Your task to perform on an android device: delete location history Image 0: 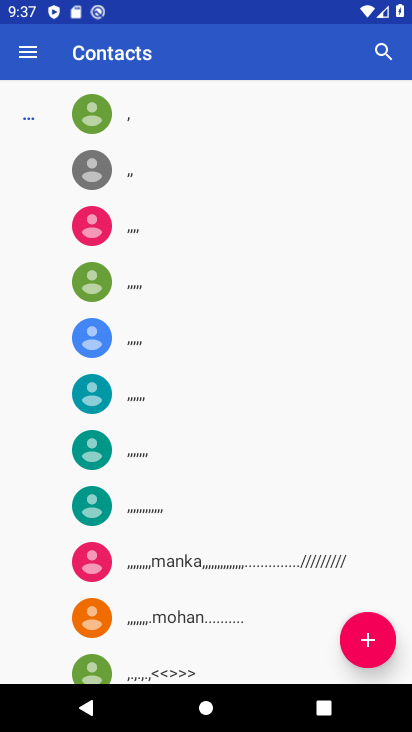
Step 0: press home button
Your task to perform on an android device: delete location history Image 1: 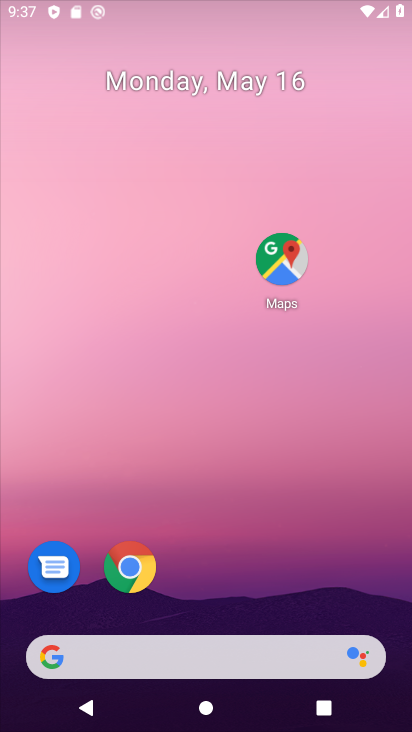
Step 1: drag from (214, 581) to (202, 141)
Your task to perform on an android device: delete location history Image 2: 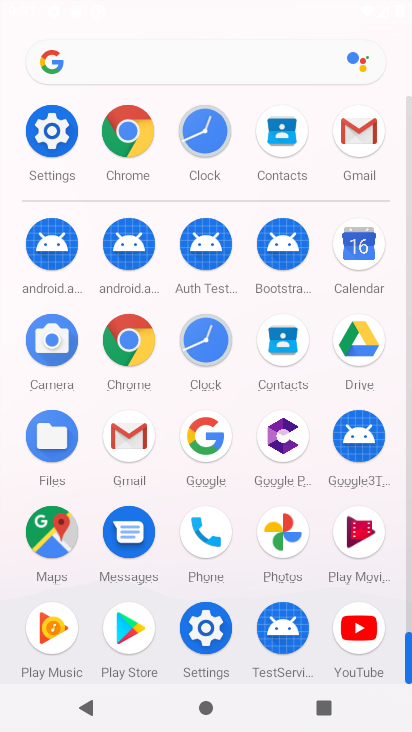
Step 2: click (206, 635)
Your task to perform on an android device: delete location history Image 3: 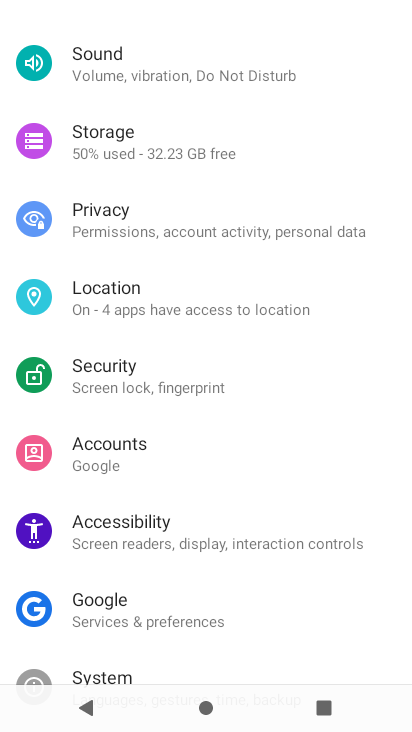
Step 3: click (190, 299)
Your task to perform on an android device: delete location history Image 4: 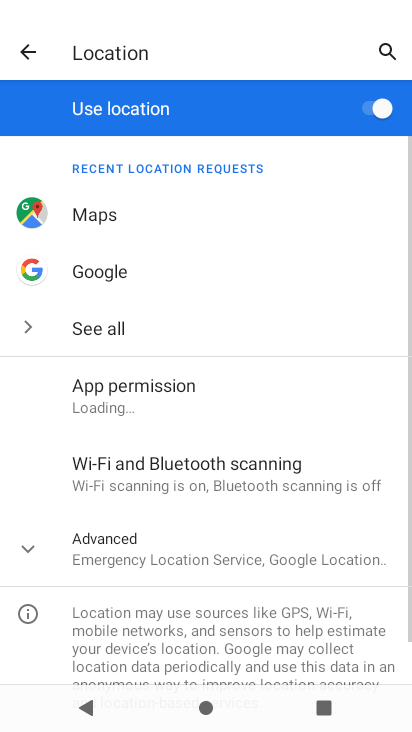
Step 4: click (129, 543)
Your task to perform on an android device: delete location history Image 5: 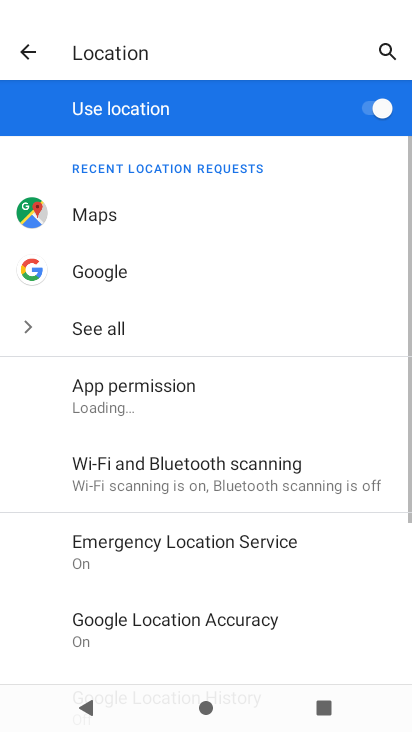
Step 5: drag from (281, 501) to (277, 258)
Your task to perform on an android device: delete location history Image 6: 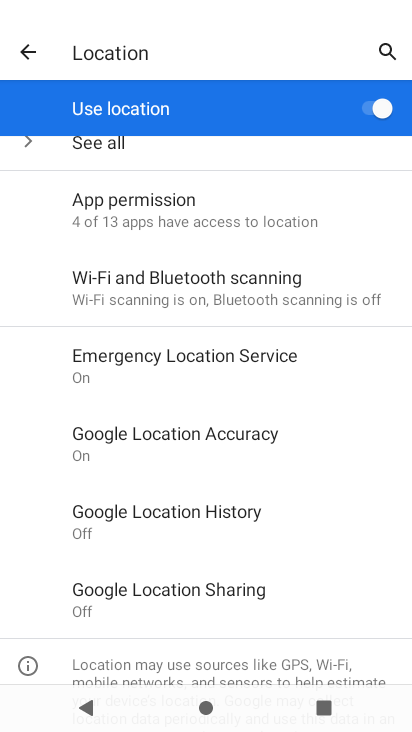
Step 6: click (169, 510)
Your task to perform on an android device: delete location history Image 7: 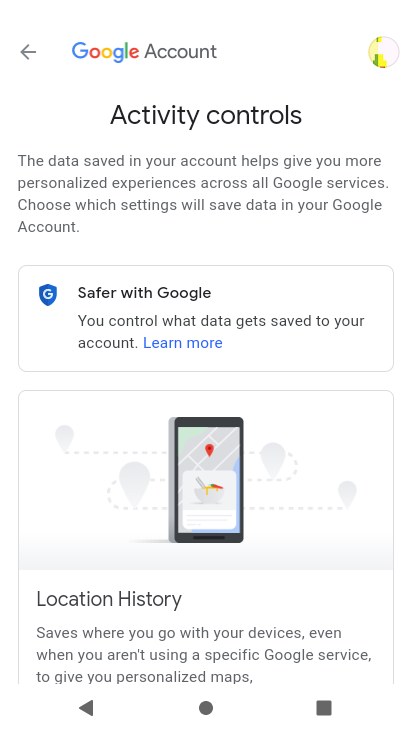
Step 7: drag from (331, 483) to (293, 81)
Your task to perform on an android device: delete location history Image 8: 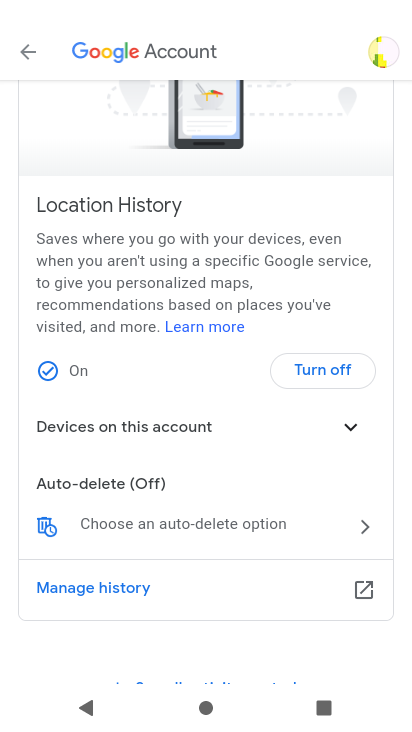
Step 8: drag from (283, 487) to (205, 214)
Your task to perform on an android device: delete location history Image 9: 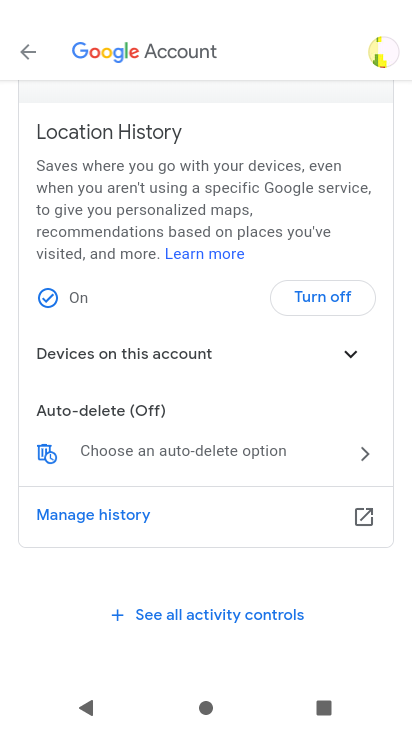
Step 9: click (40, 450)
Your task to perform on an android device: delete location history Image 10: 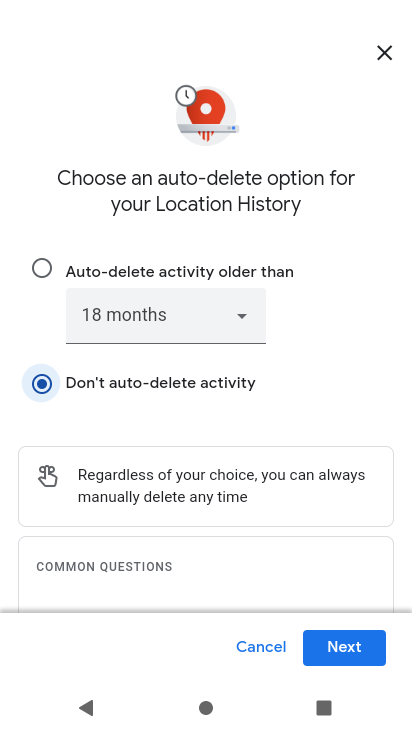
Step 10: click (343, 642)
Your task to perform on an android device: delete location history Image 11: 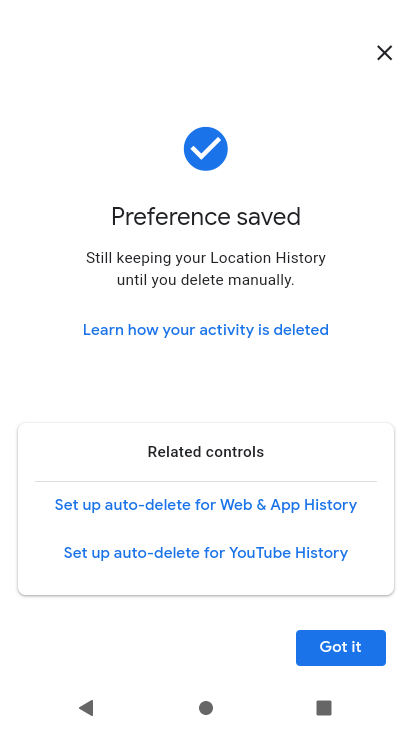
Step 11: click (350, 657)
Your task to perform on an android device: delete location history Image 12: 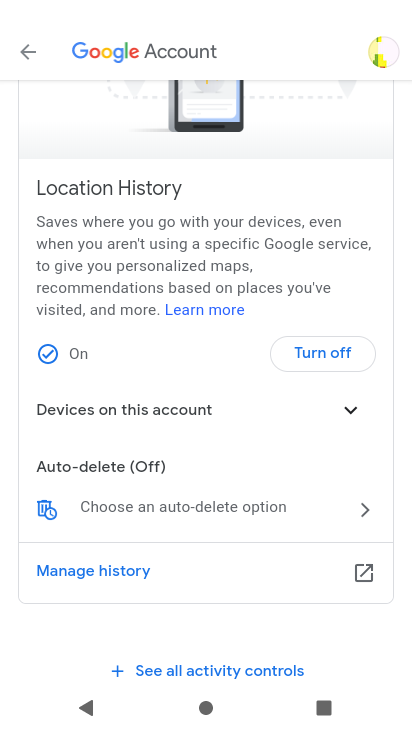
Step 12: task complete